Your task to perform on an android device: delete browsing data in the chrome app Image 0: 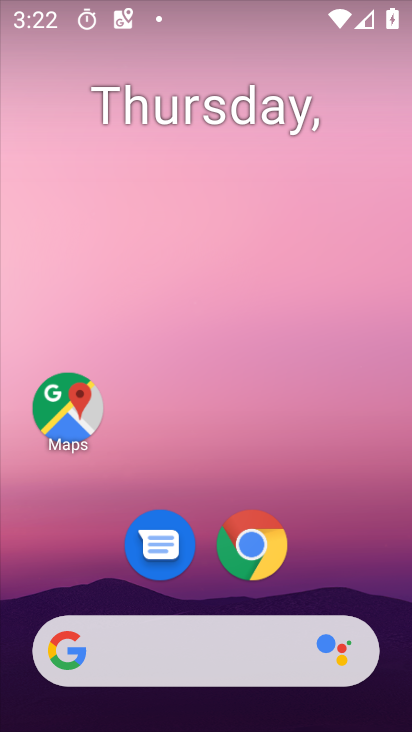
Step 0: click (255, 544)
Your task to perform on an android device: delete browsing data in the chrome app Image 1: 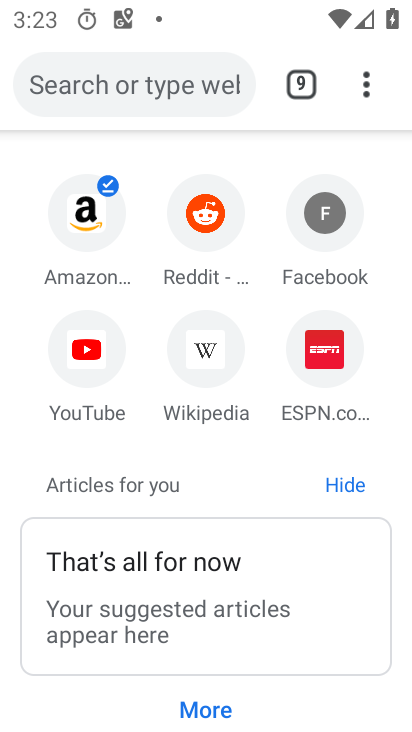
Step 1: click (365, 88)
Your task to perform on an android device: delete browsing data in the chrome app Image 2: 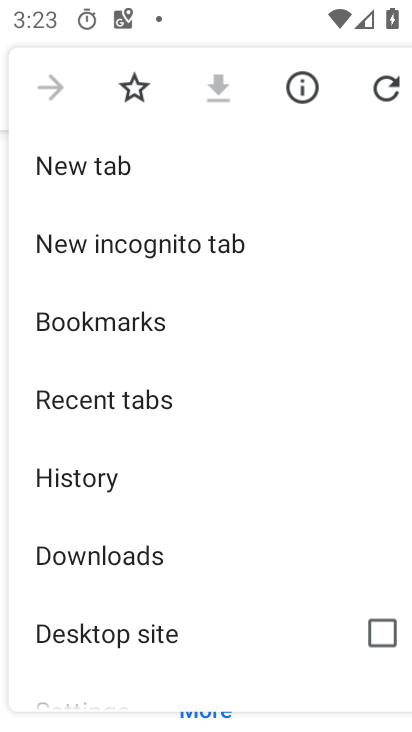
Step 2: click (81, 478)
Your task to perform on an android device: delete browsing data in the chrome app Image 3: 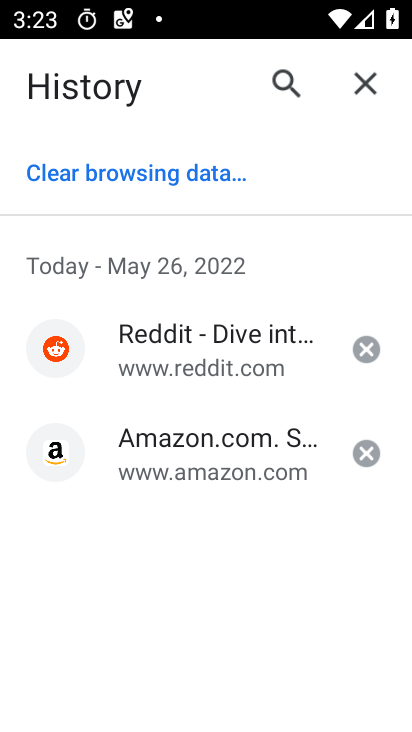
Step 3: click (150, 179)
Your task to perform on an android device: delete browsing data in the chrome app Image 4: 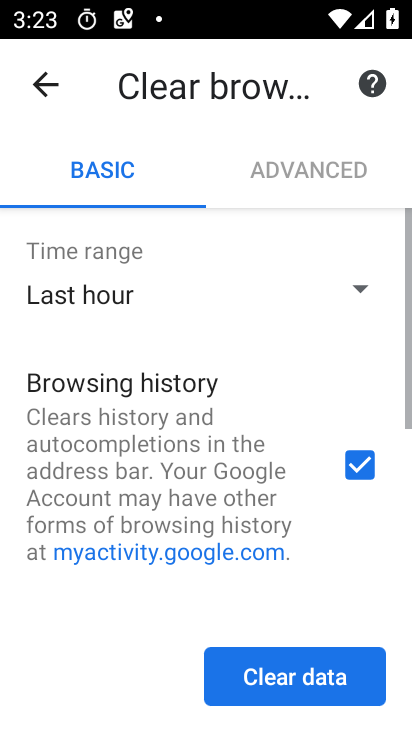
Step 4: drag from (192, 535) to (193, 148)
Your task to perform on an android device: delete browsing data in the chrome app Image 5: 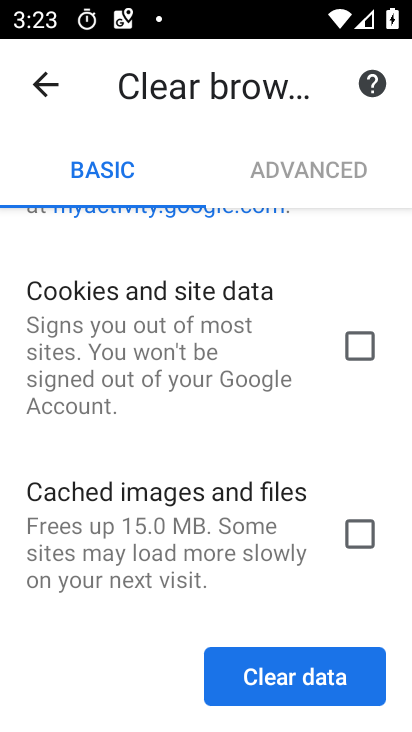
Step 5: drag from (283, 261) to (282, 518)
Your task to perform on an android device: delete browsing data in the chrome app Image 6: 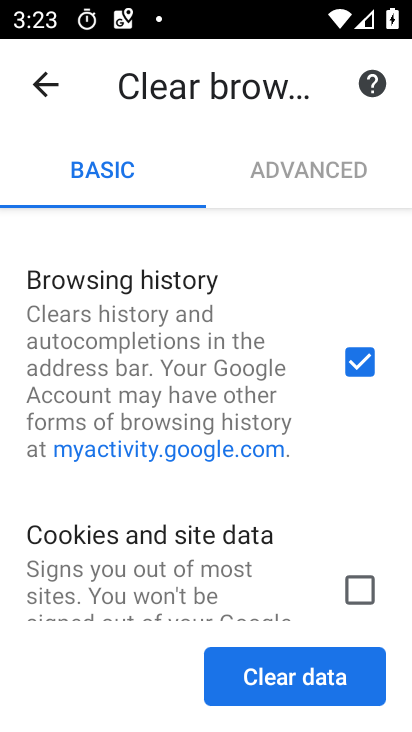
Step 6: click (300, 675)
Your task to perform on an android device: delete browsing data in the chrome app Image 7: 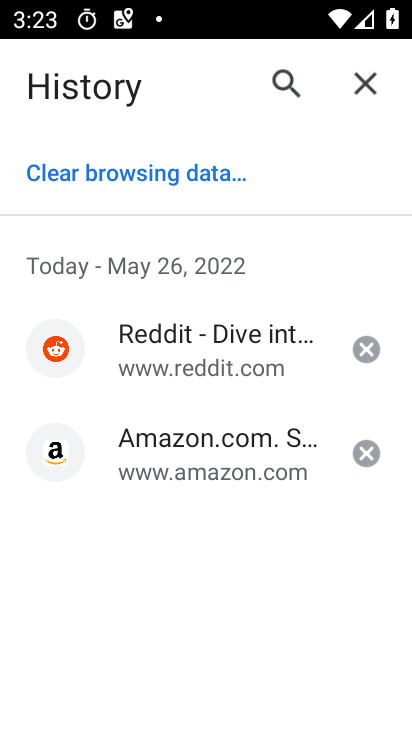
Step 7: task complete